Your task to perform on an android device: Show me popular games on the Play Store Image 0: 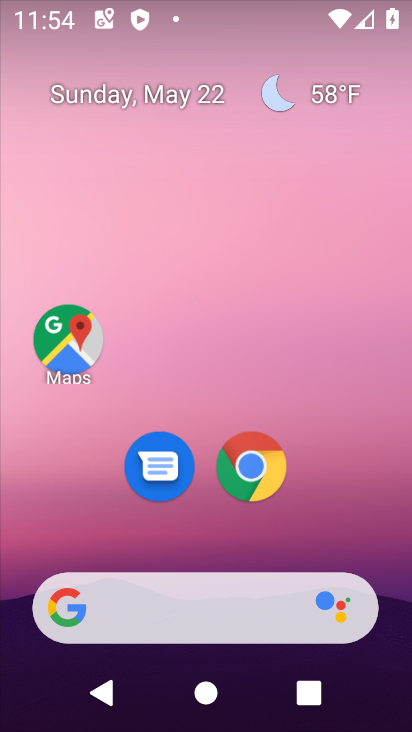
Step 0: drag from (190, 539) to (212, 67)
Your task to perform on an android device: Show me popular games on the Play Store Image 1: 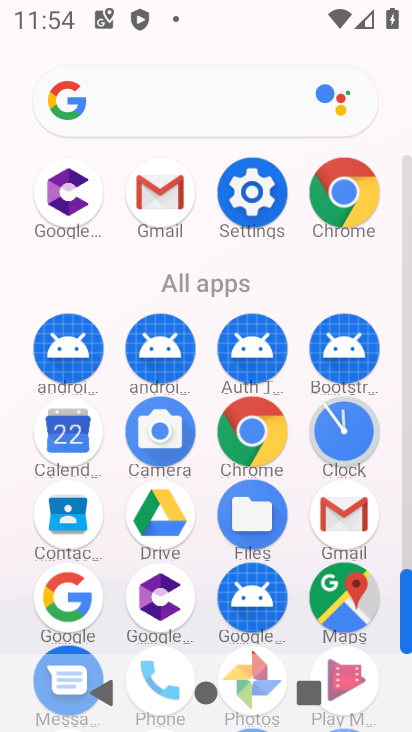
Step 1: drag from (206, 536) to (212, 95)
Your task to perform on an android device: Show me popular games on the Play Store Image 2: 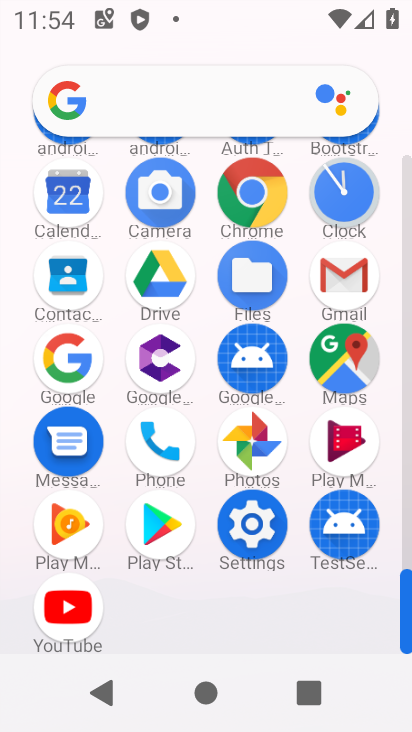
Step 2: drag from (201, 289) to (190, 512)
Your task to perform on an android device: Show me popular games on the Play Store Image 3: 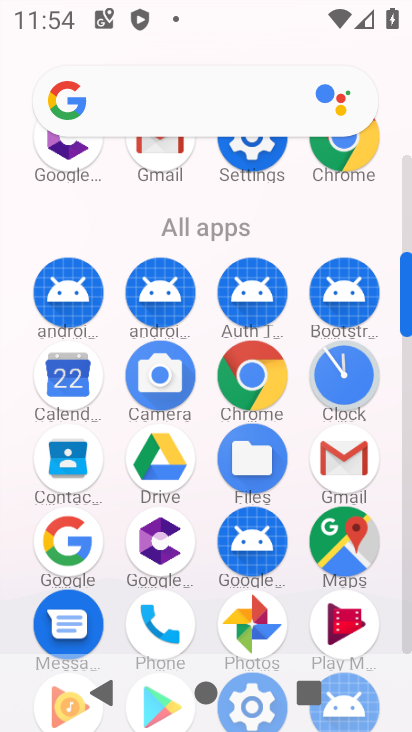
Step 3: drag from (196, 432) to (198, 322)
Your task to perform on an android device: Show me popular games on the Play Store Image 4: 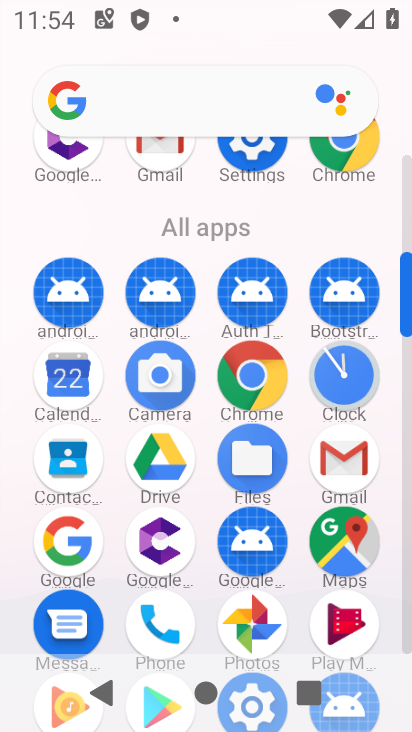
Step 4: drag from (196, 504) to (213, 275)
Your task to perform on an android device: Show me popular games on the Play Store Image 5: 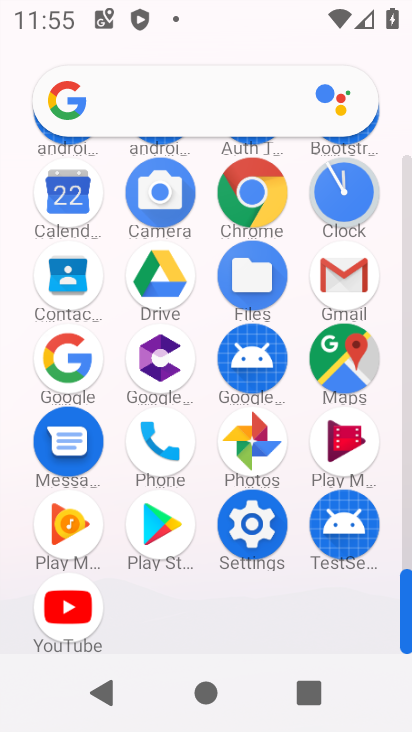
Step 5: click (152, 515)
Your task to perform on an android device: Show me popular games on the Play Store Image 6: 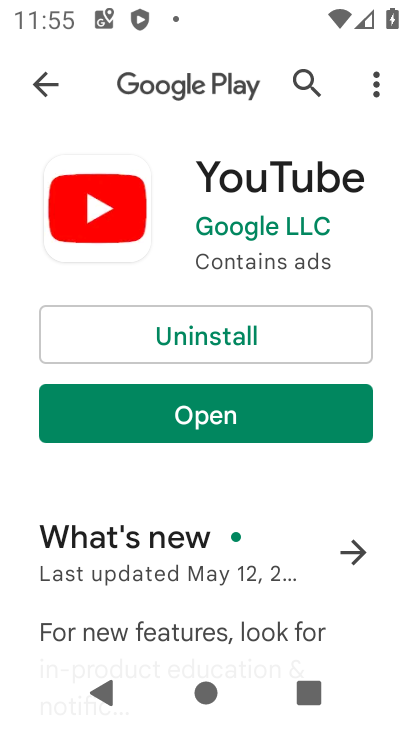
Step 6: press back button
Your task to perform on an android device: Show me popular games on the Play Store Image 7: 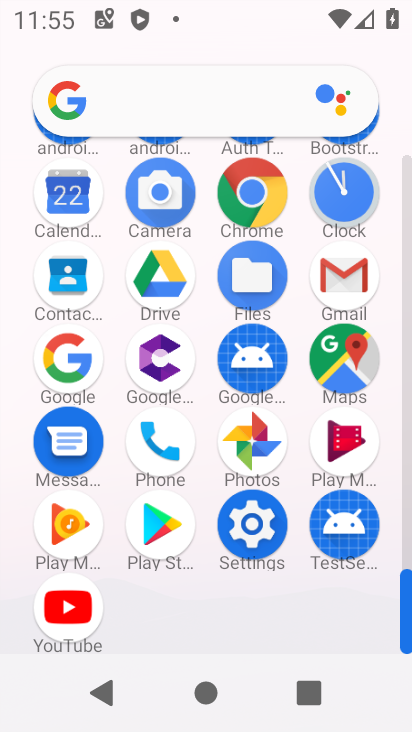
Step 7: click (169, 520)
Your task to perform on an android device: Show me popular games on the Play Store Image 8: 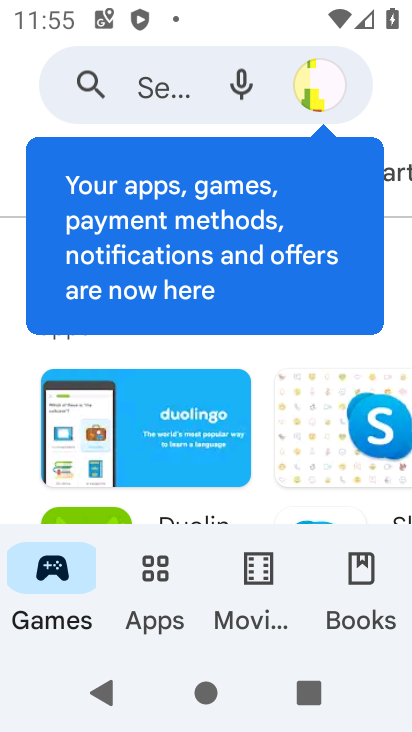
Step 8: drag from (285, 383) to (296, 69)
Your task to perform on an android device: Show me popular games on the Play Store Image 9: 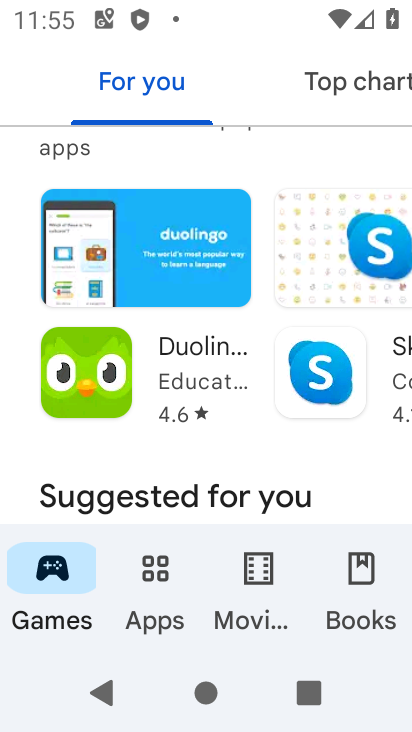
Step 9: drag from (257, 434) to (282, 77)
Your task to perform on an android device: Show me popular games on the Play Store Image 10: 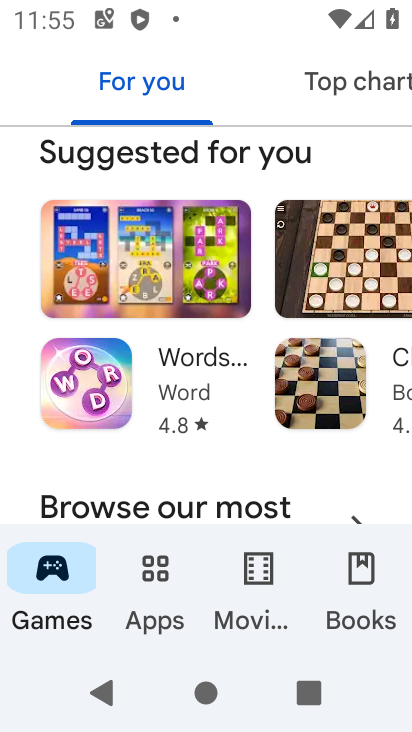
Step 10: drag from (175, 486) to (240, 199)
Your task to perform on an android device: Show me popular games on the Play Store Image 11: 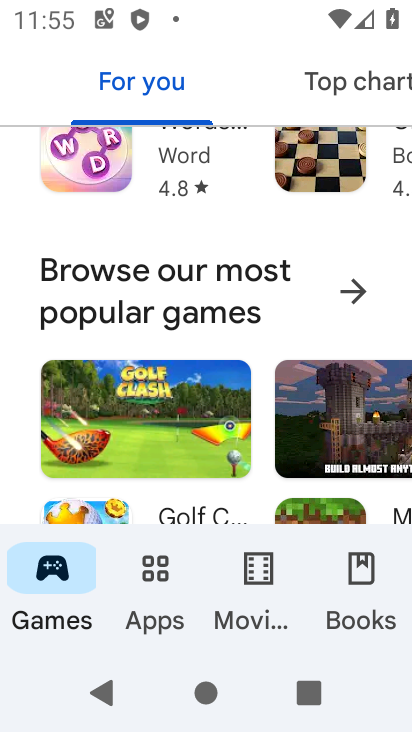
Step 11: click (349, 280)
Your task to perform on an android device: Show me popular games on the Play Store Image 12: 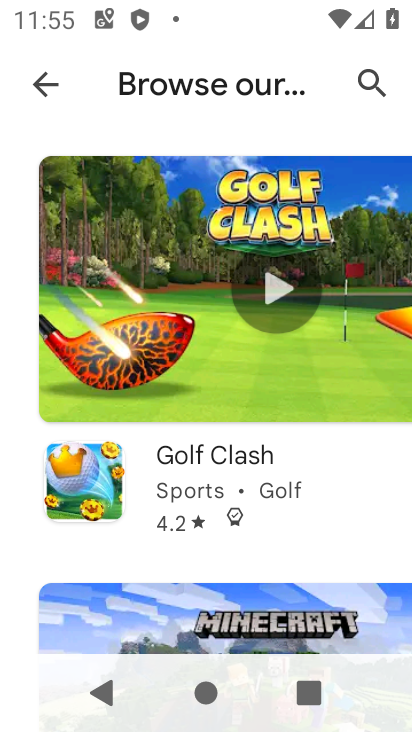
Step 12: task complete